Your task to perform on an android device: change the clock display to digital Image 0: 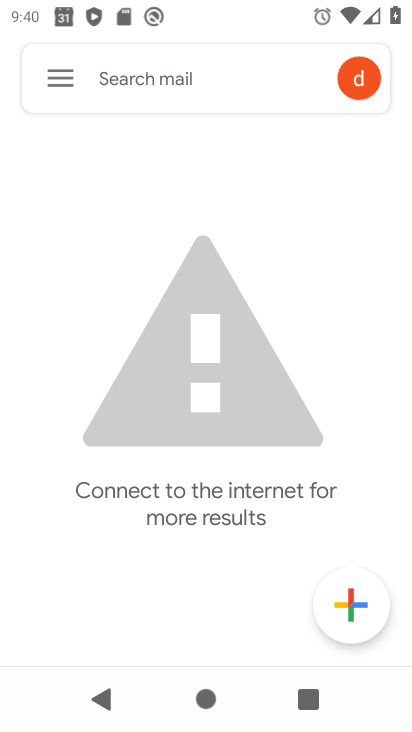
Step 0: press home button
Your task to perform on an android device: change the clock display to digital Image 1: 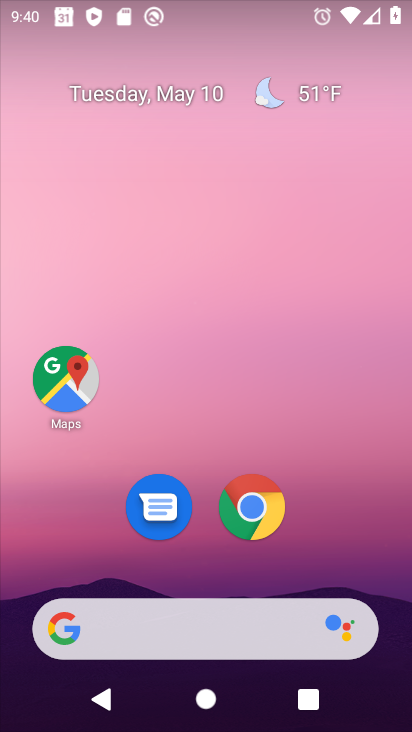
Step 1: drag from (208, 592) to (215, 19)
Your task to perform on an android device: change the clock display to digital Image 2: 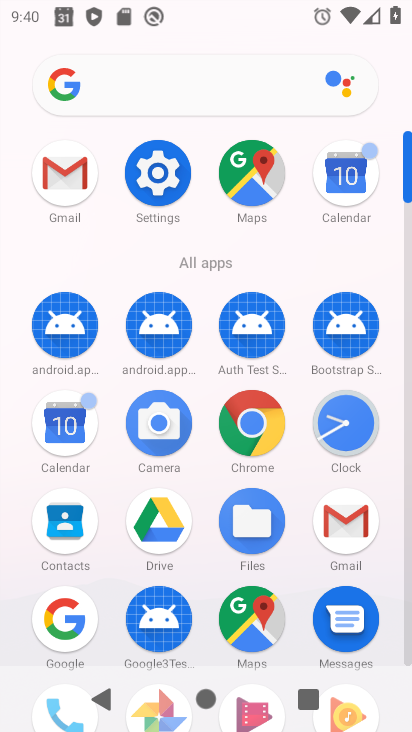
Step 2: drag from (208, 601) to (220, 294)
Your task to perform on an android device: change the clock display to digital Image 3: 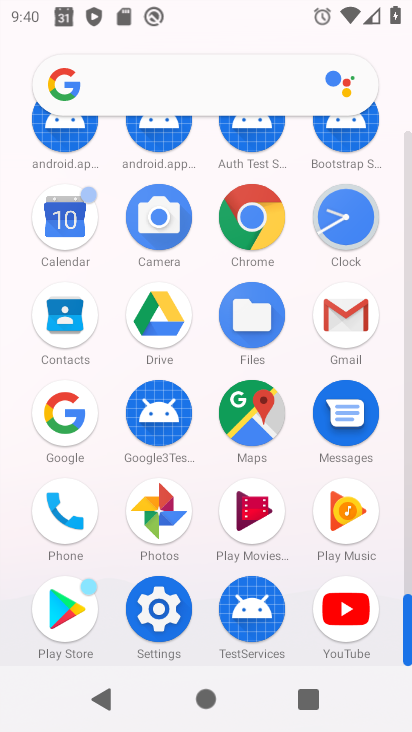
Step 3: click (354, 228)
Your task to perform on an android device: change the clock display to digital Image 4: 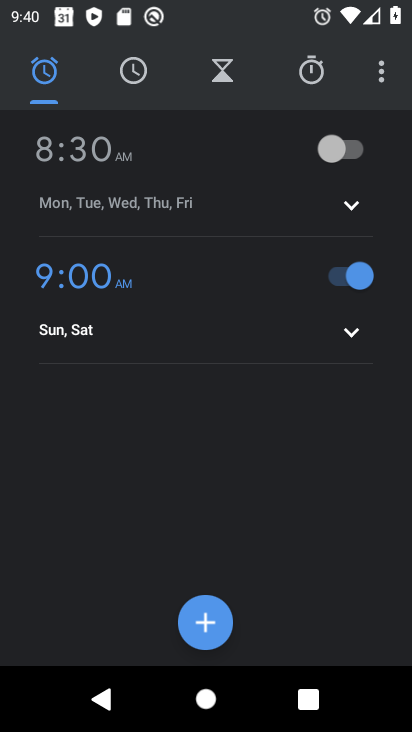
Step 4: click (368, 56)
Your task to perform on an android device: change the clock display to digital Image 5: 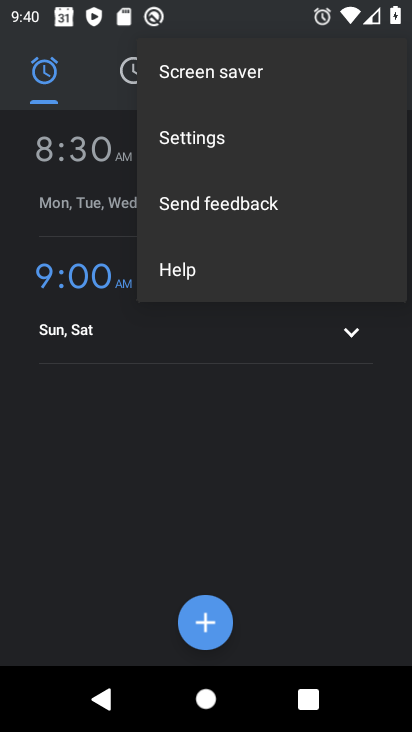
Step 5: click (282, 131)
Your task to perform on an android device: change the clock display to digital Image 6: 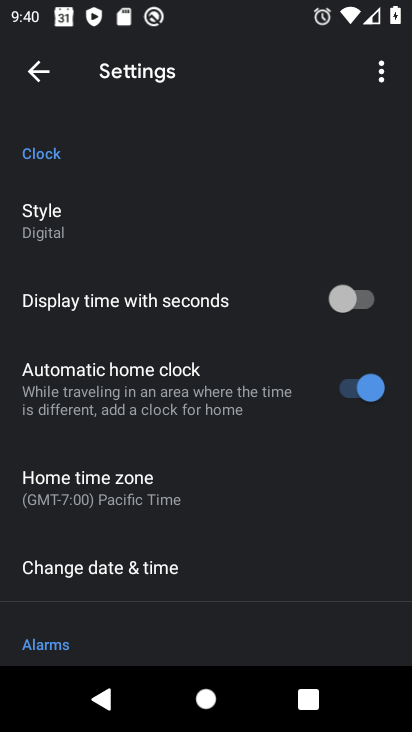
Step 6: task complete